Your task to perform on an android device: Search for Italian restaurants on Maps Image 0: 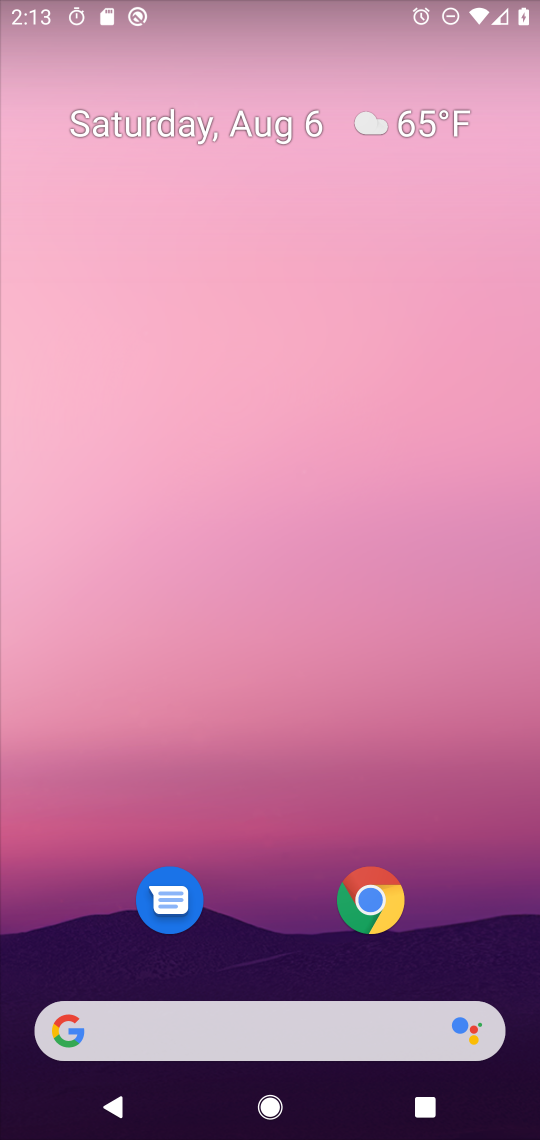
Step 0: drag from (263, 987) to (253, 128)
Your task to perform on an android device: Search for Italian restaurants on Maps Image 1: 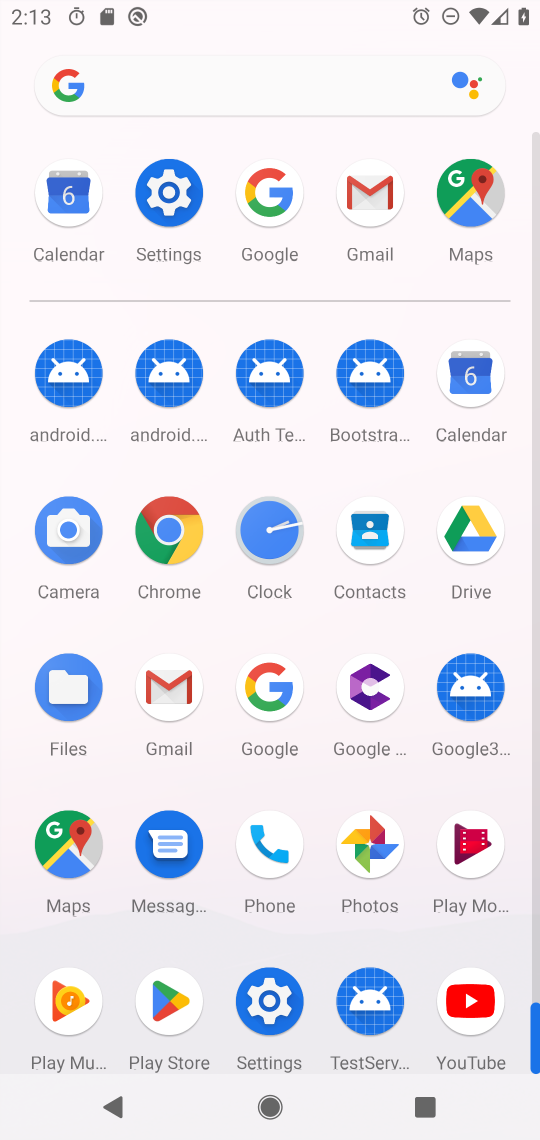
Step 1: click (55, 845)
Your task to perform on an android device: Search for Italian restaurants on Maps Image 2: 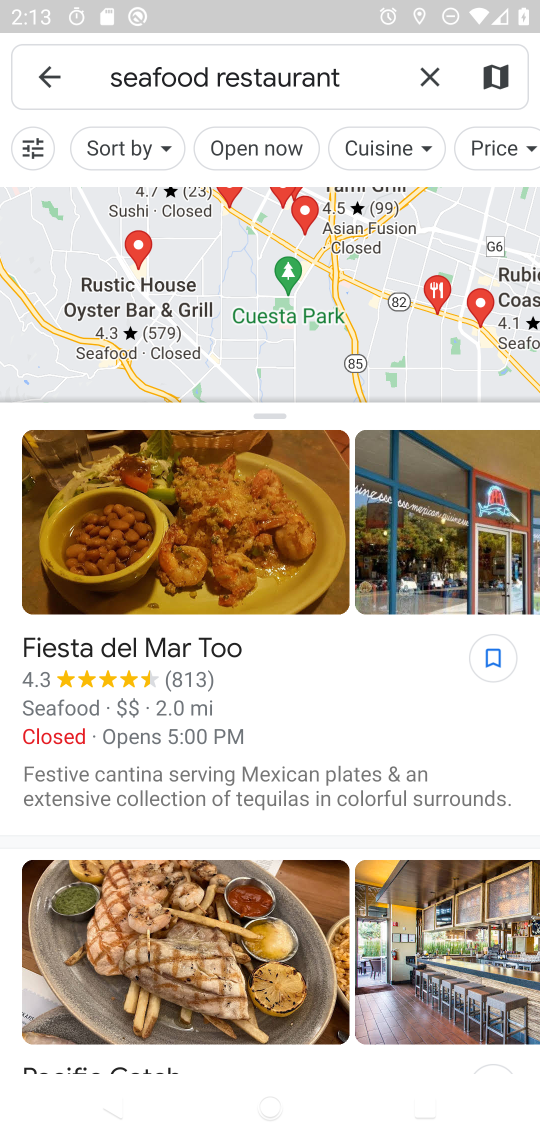
Step 2: click (436, 72)
Your task to perform on an android device: Search for Italian restaurants on Maps Image 3: 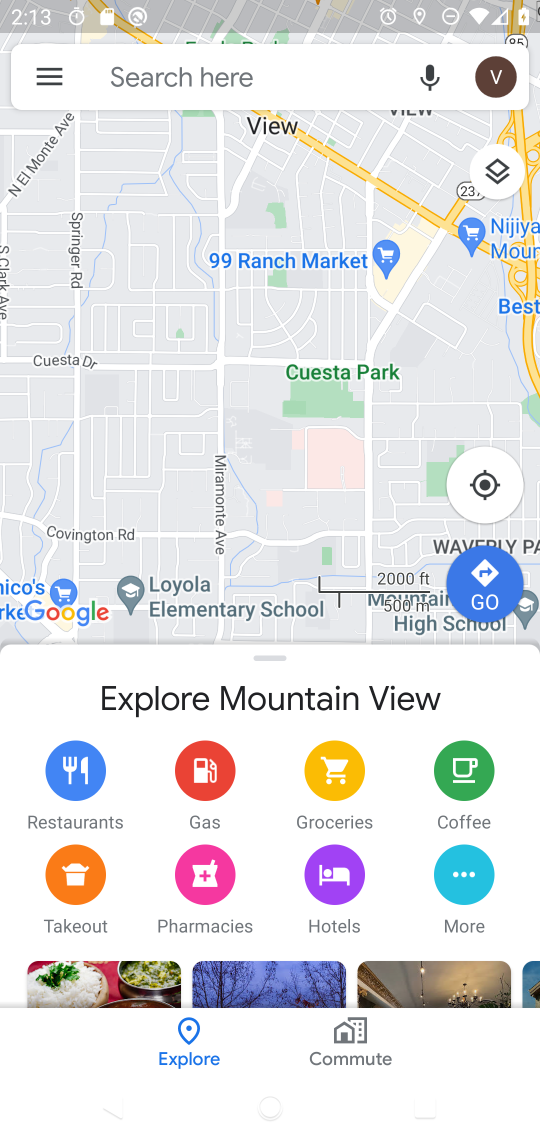
Step 3: click (280, 72)
Your task to perform on an android device: Search for Italian restaurants on Maps Image 4: 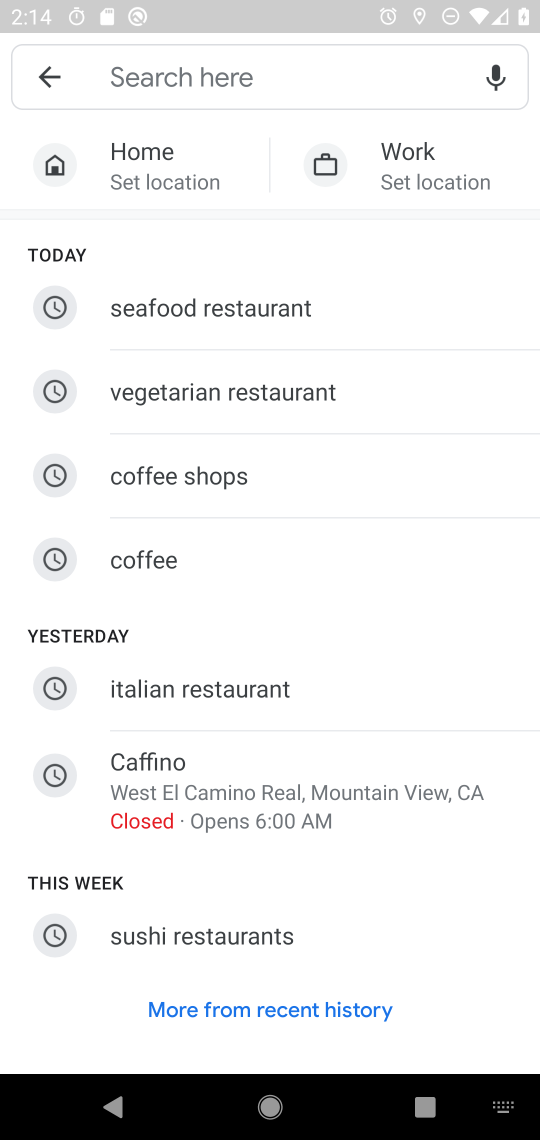
Step 4: type "Italian restaurants"
Your task to perform on an android device: Search for Italian restaurants on Maps Image 5: 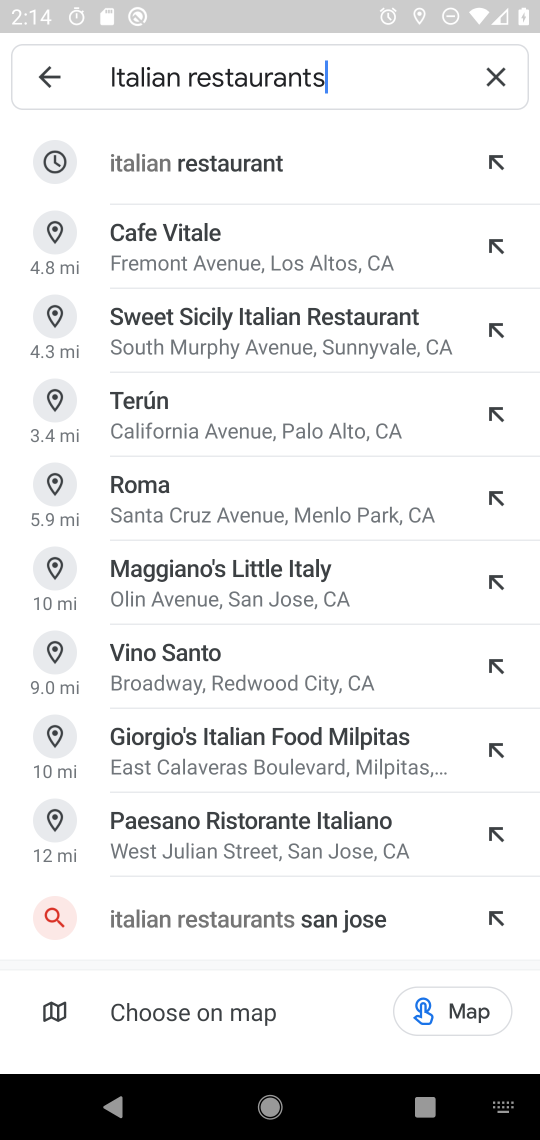
Step 5: click (257, 156)
Your task to perform on an android device: Search for Italian restaurants on Maps Image 6: 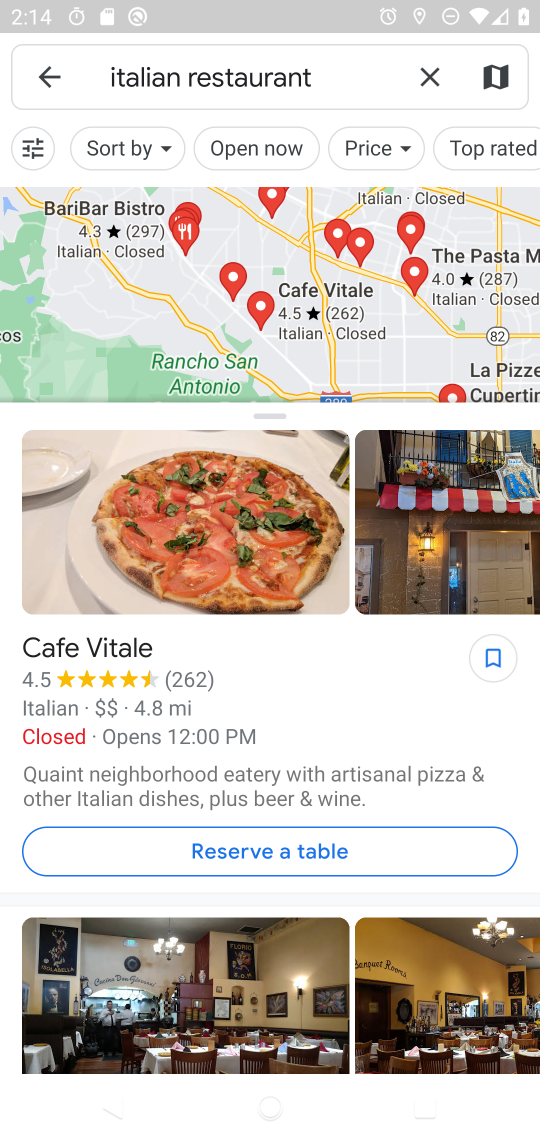
Step 6: task complete